Your task to perform on an android device: add a contact in the contacts app Image 0: 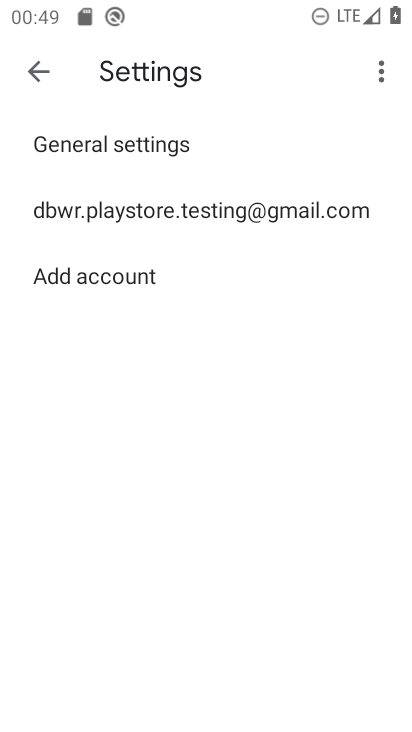
Step 0: press home button
Your task to perform on an android device: add a contact in the contacts app Image 1: 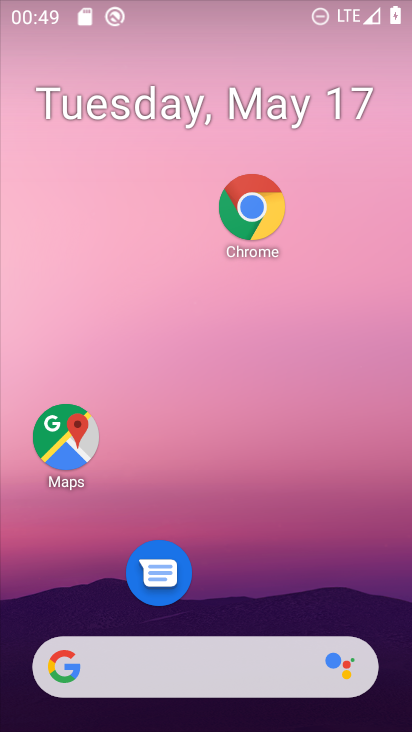
Step 1: drag from (248, 679) to (274, 161)
Your task to perform on an android device: add a contact in the contacts app Image 2: 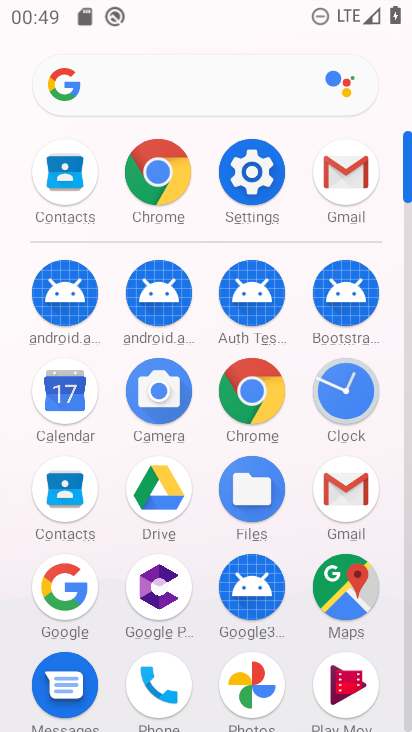
Step 2: click (78, 489)
Your task to perform on an android device: add a contact in the contacts app Image 3: 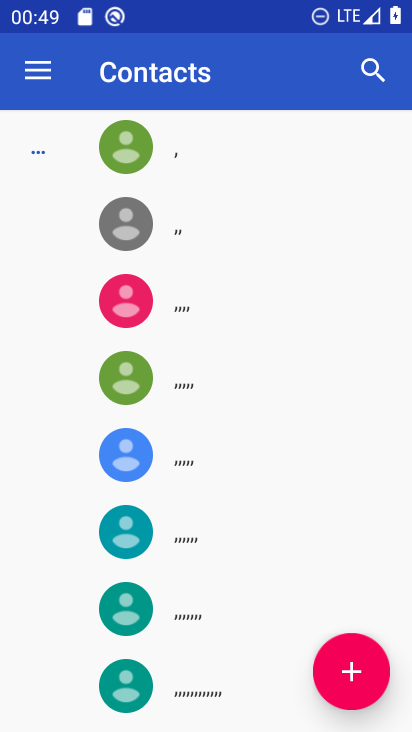
Step 3: click (366, 668)
Your task to perform on an android device: add a contact in the contacts app Image 4: 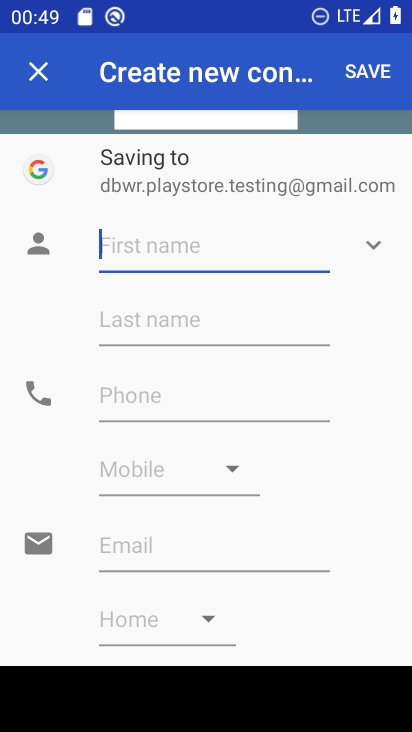
Step 4: type "jgjgjhhjv"
Your task to perform on an android device: add a contact in the contacts app Image 5: 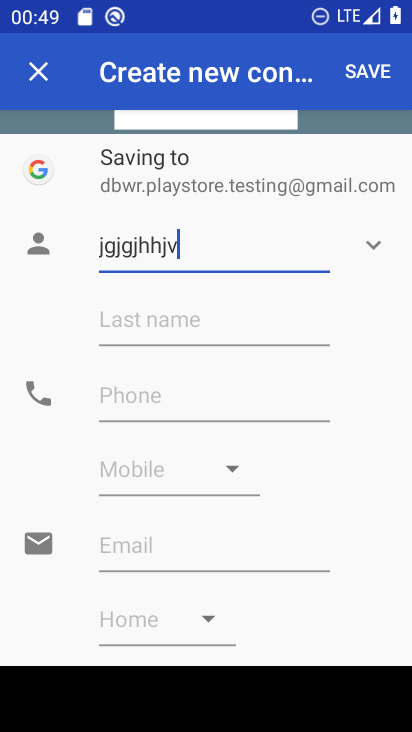
Step 5: click (212, 401)
Your task to perform on an android device: add a contact in the contacts app Image 6: 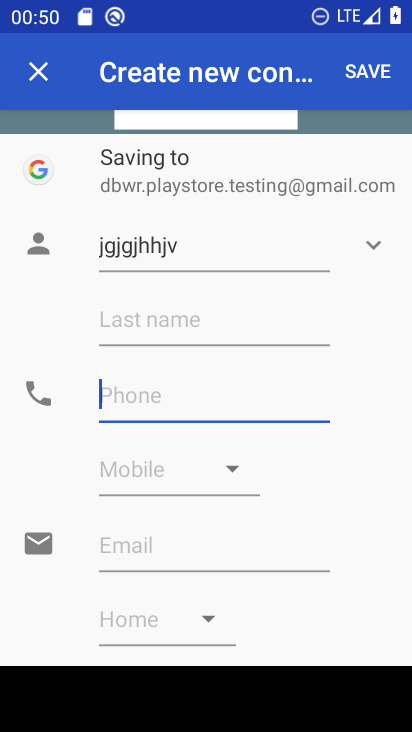
Step 6: type "98976767878"
Your task to perform on an android device: add a contact in the contacts app Image 7: 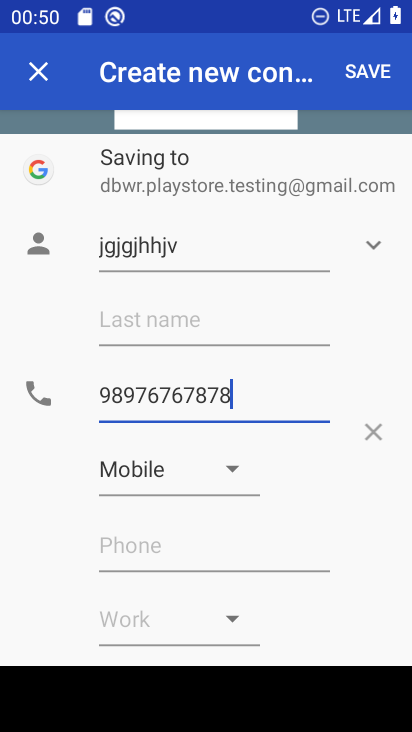
Step 7: click (360, 74)
Your task to perform on an android device: add a contact in the contacts app Image 8: 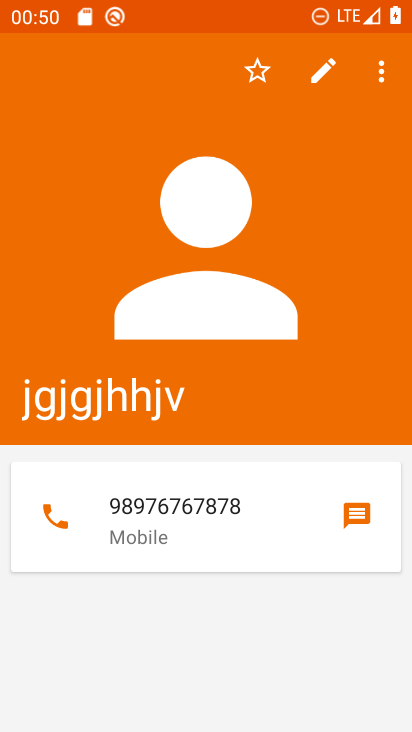
Step 8: task complete